Your task to perform on an android device: delete a single message in the gmail app Image 0: 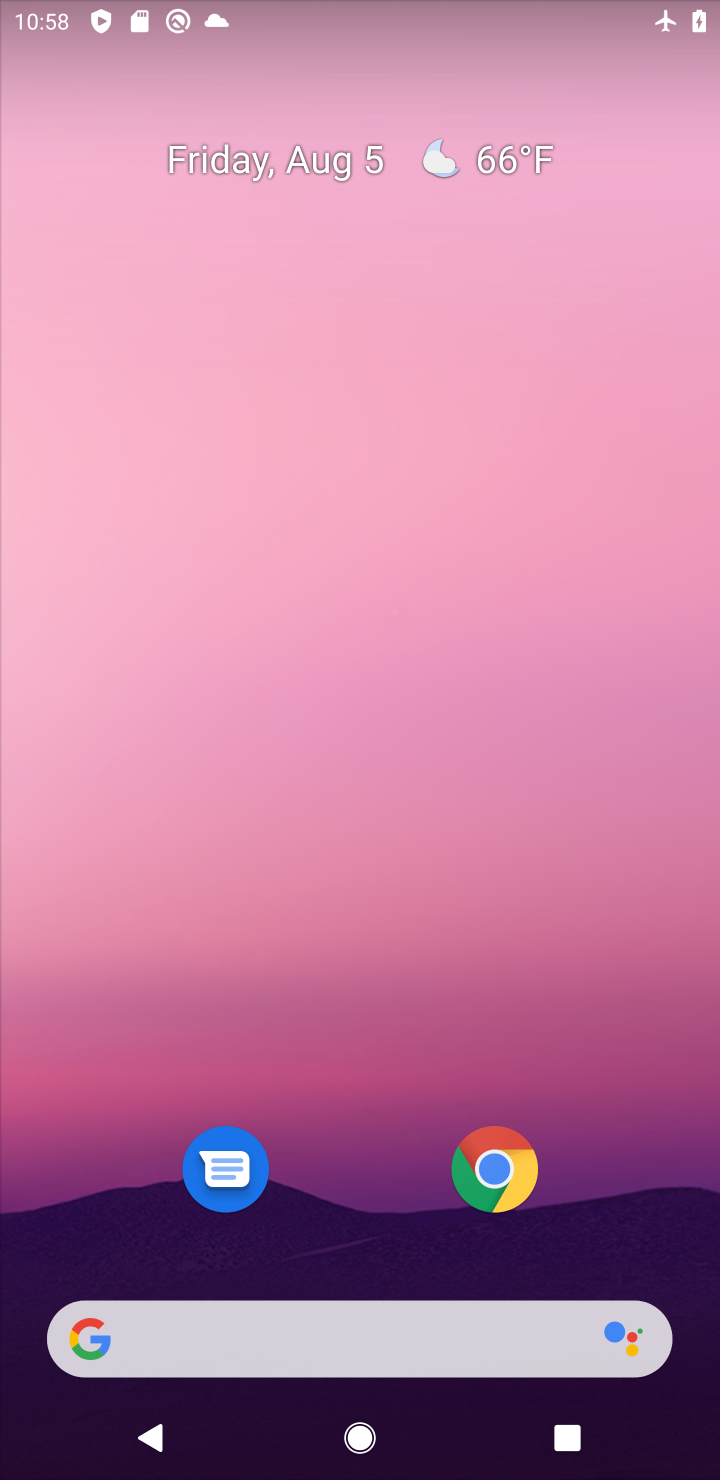
Step 0: drag from (674, 1244) to (613, 109)
Your task to perform on an android device: delete a single message in the gmail app Image 1: 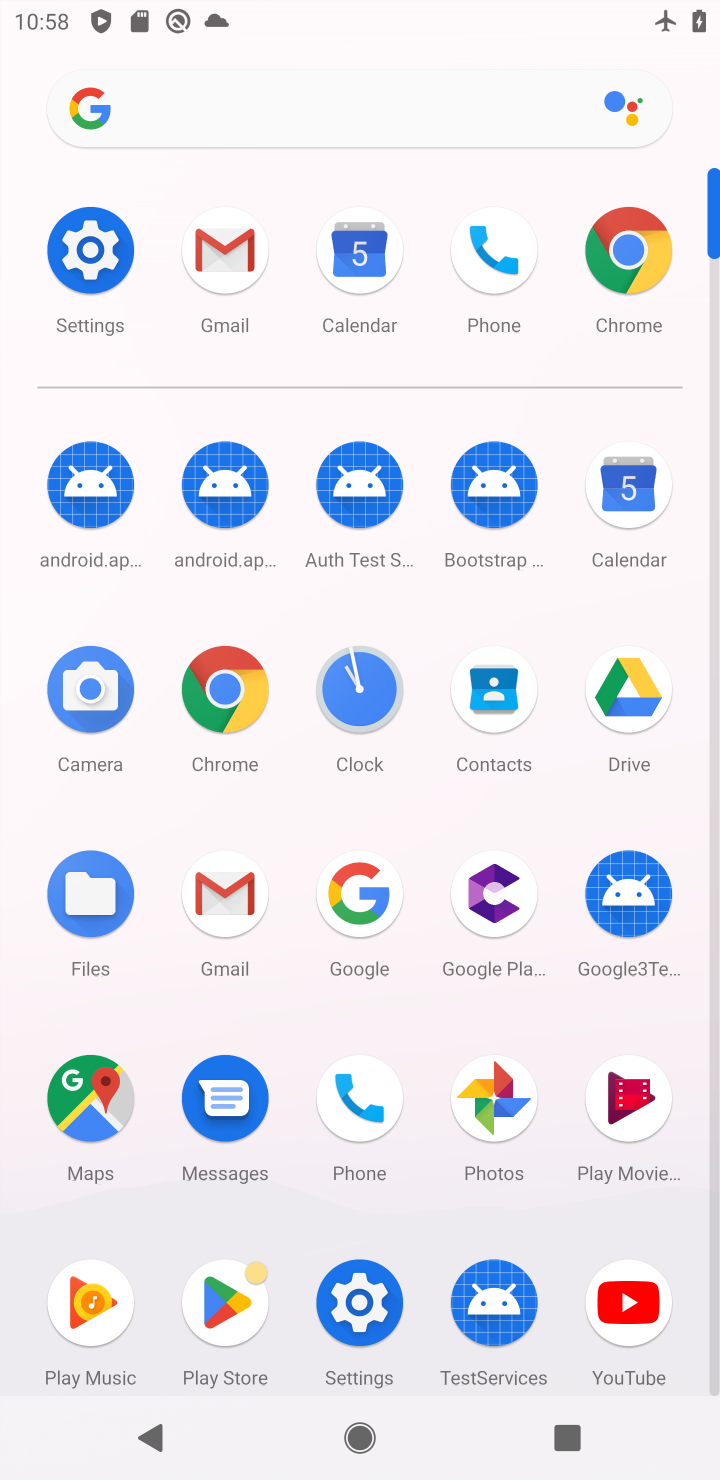
Step 1: click (219, 899)
Your task to perform on an android device: delete a single message in the gmail app Image 2: 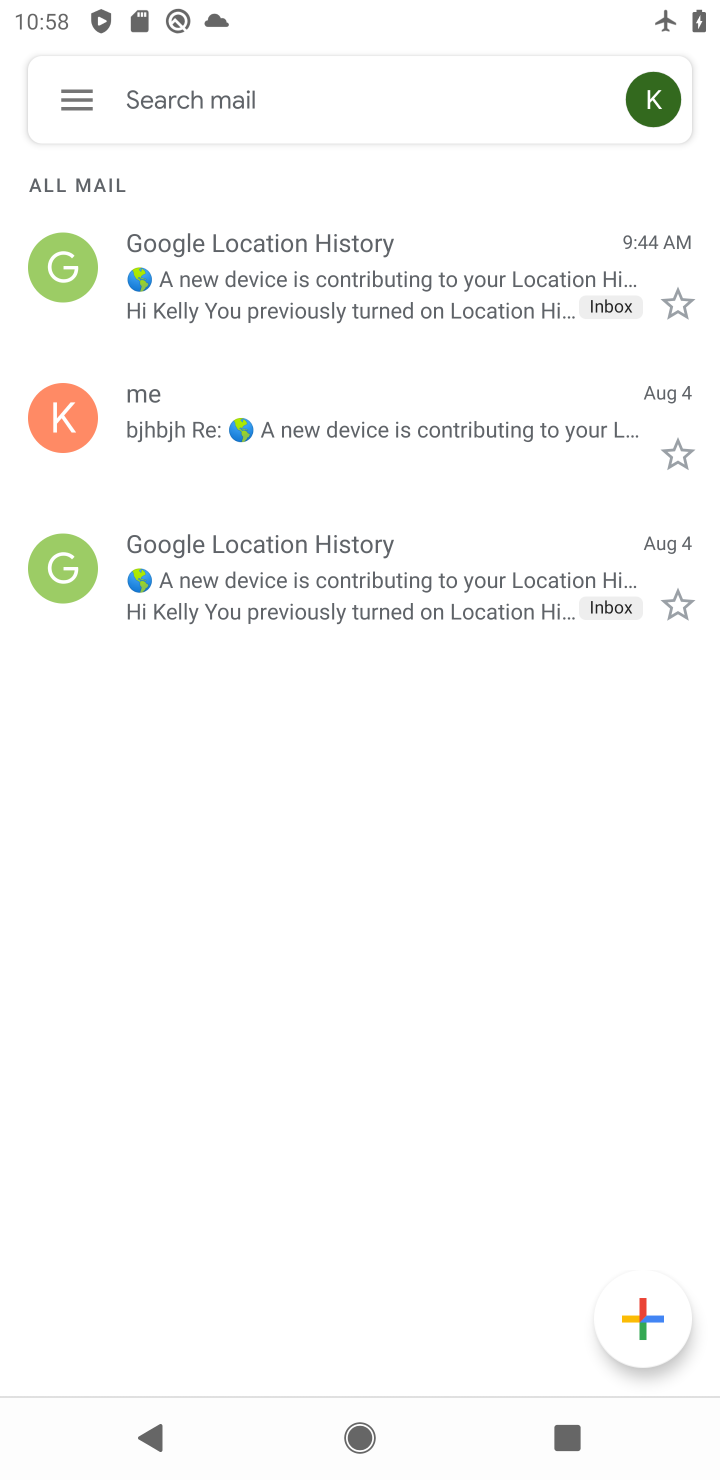
Step 2: click (331, 259)
Your task to perform on an android device: delete a single message in the gmail app Image 3: 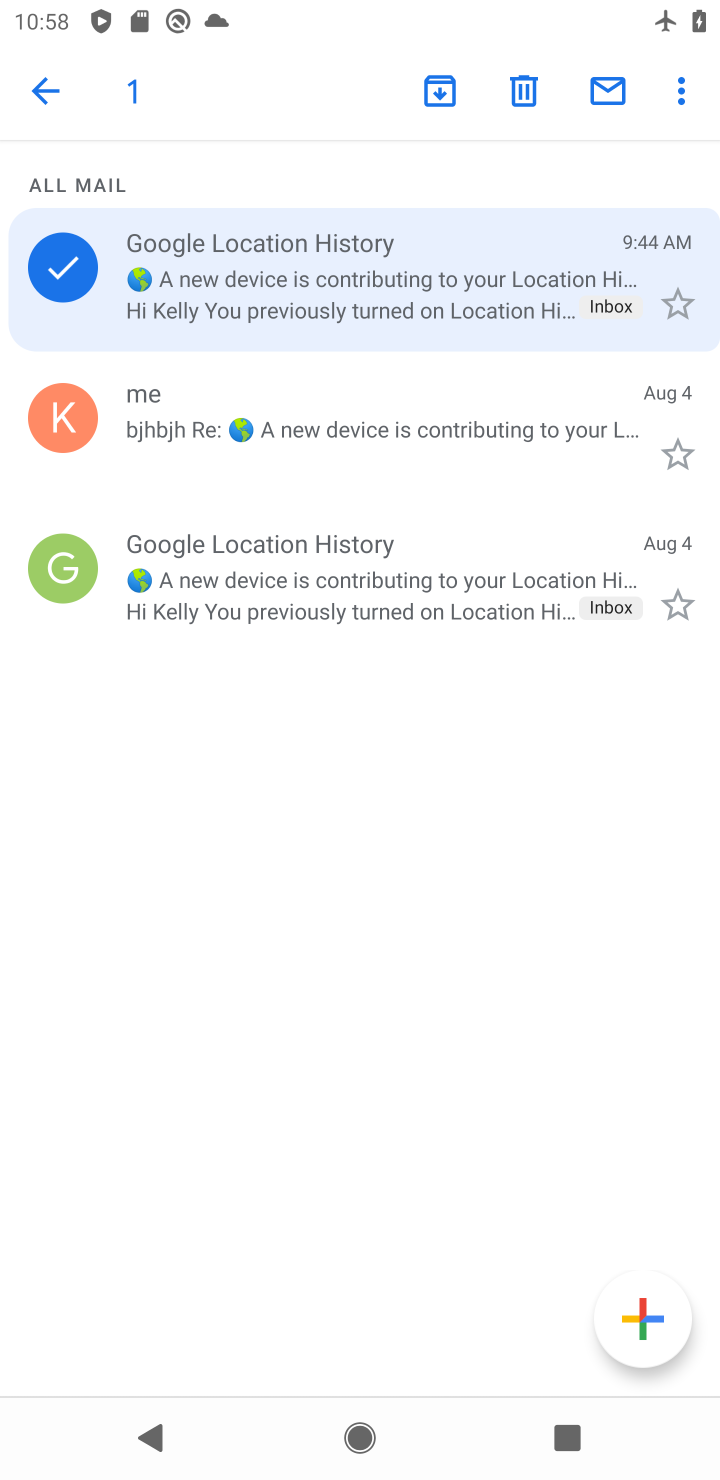
Step 3: click (521, 89)
Your task to perform on an android device: delete a single message in the gmail app Image 4: 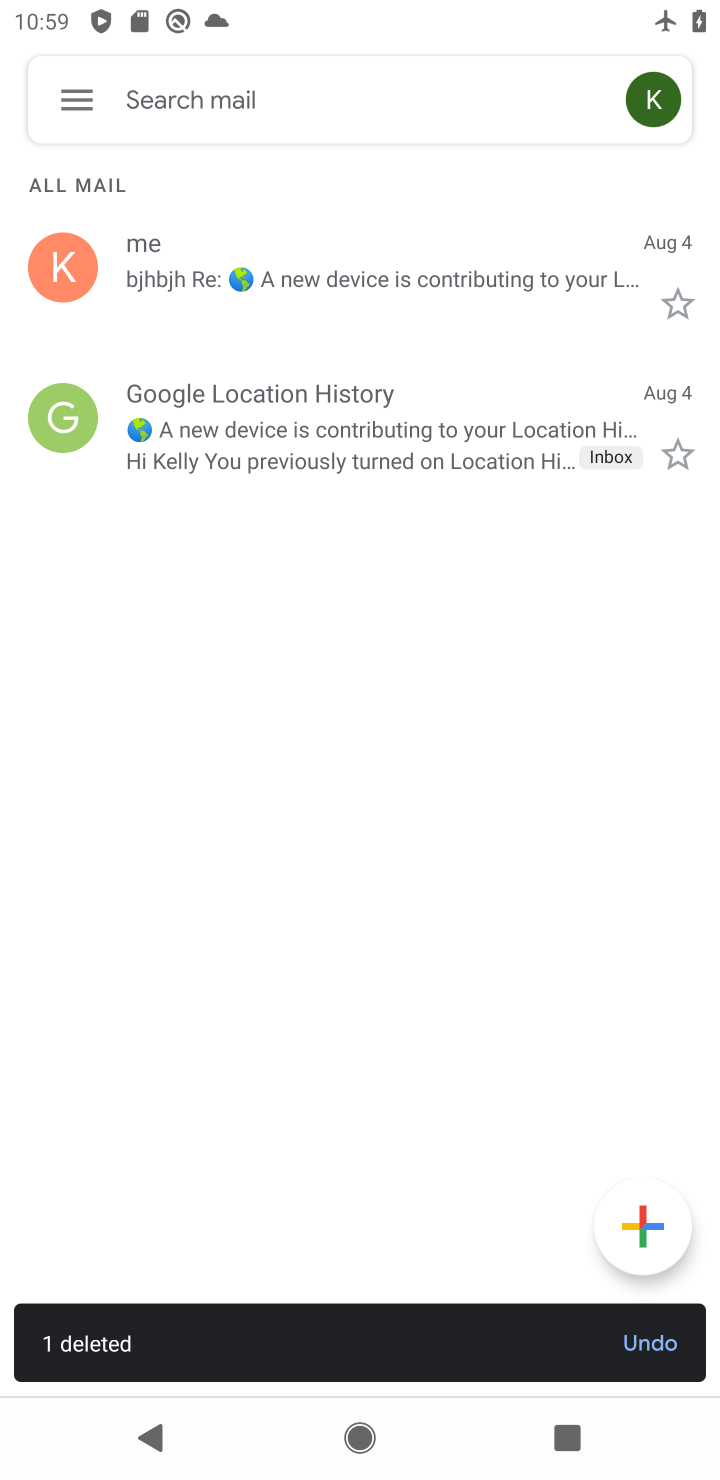
Step 4: task complete